Your task to perform on an android device: search for starred emails in the gmail app Image 0: 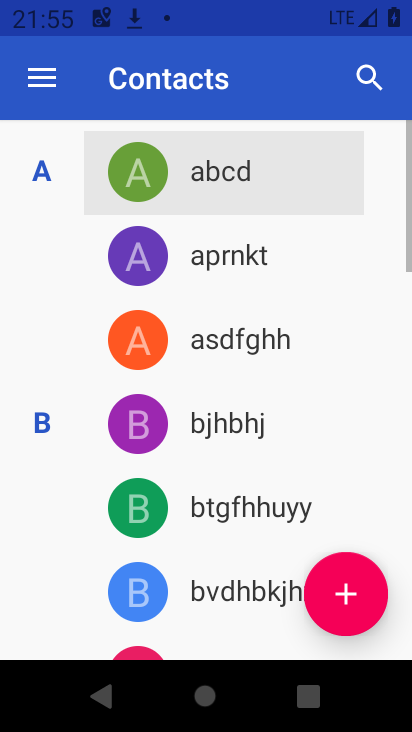
Step 0: click (245, 469)
Your task to perform on an android device: search for starred emails in the gmail app Image 1: 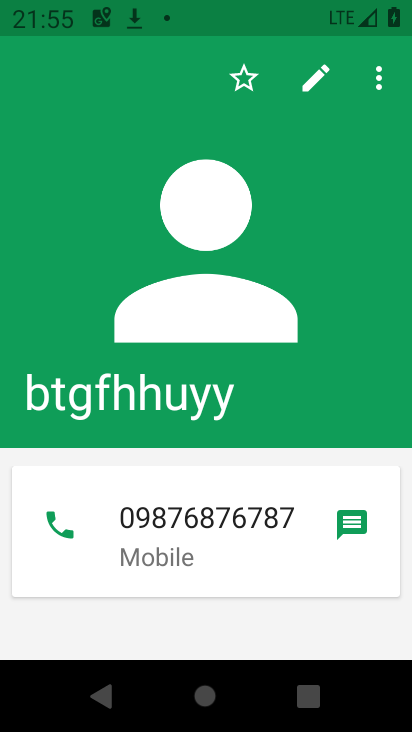
Step 1: press back button
Your task to perform on an android device: search for starred emails in the gmail app Image 2: 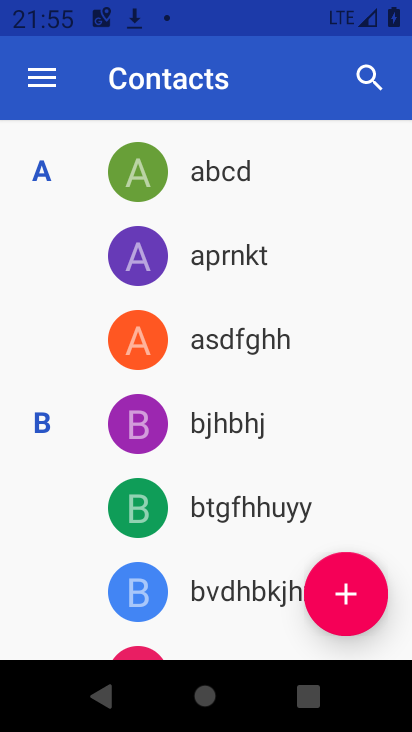
Step 2: press back button
Your task to perform on an android device: search for starred emails in the gmail app Image 3: 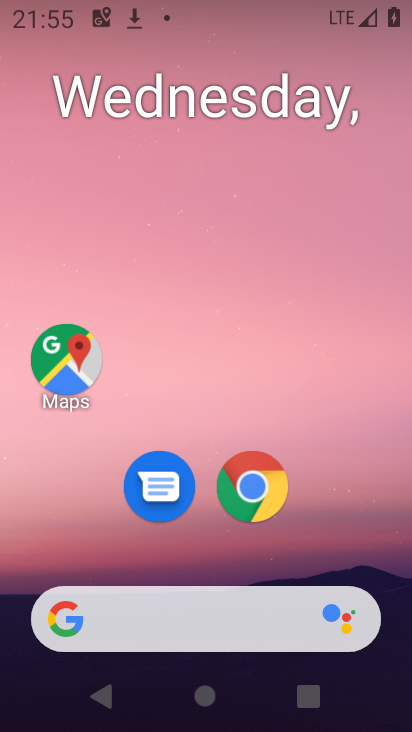
Step 3: drag from (183, 545) to (305, 15)
Your task to perform on an android device: search for starred emails in the gmail app Image 4: 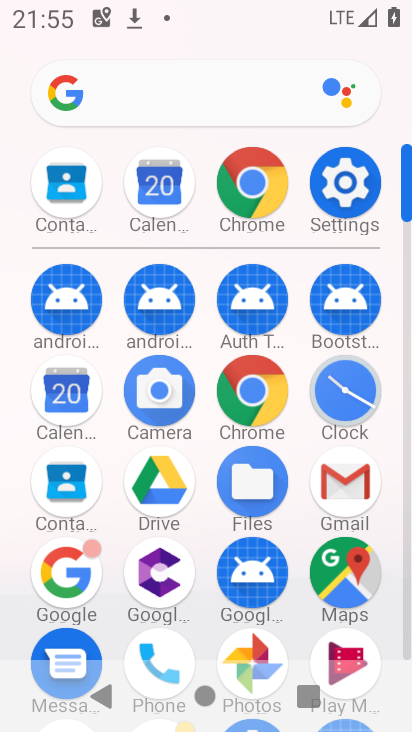
Step 4: click (341, 484)
Your task to perform on an android device: search for starred emails in the gmail app Image 5: 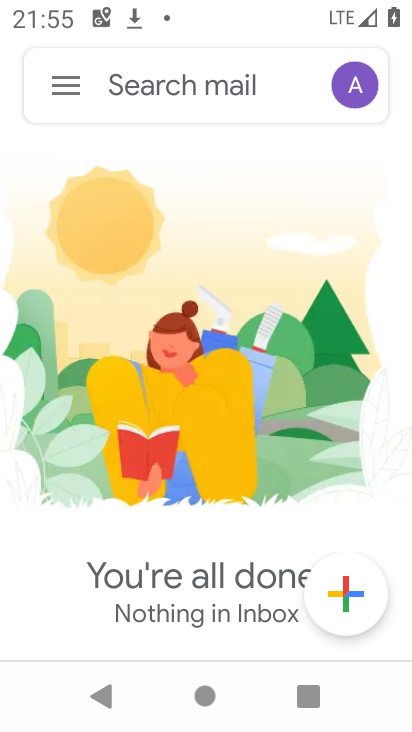
Step 5: click (78, 82)
Your task to perform on an android device: search for starred emails in the gmail app Image 6: 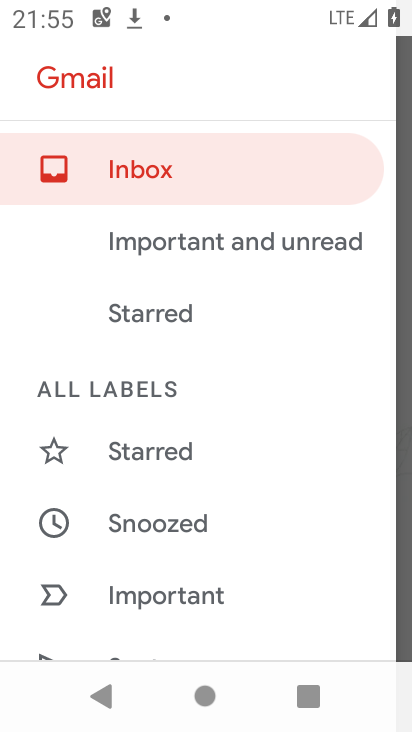
Step 6: click (140, 448)
Your task to perform on an android device: search for starred emails in the gmail app Image 7: 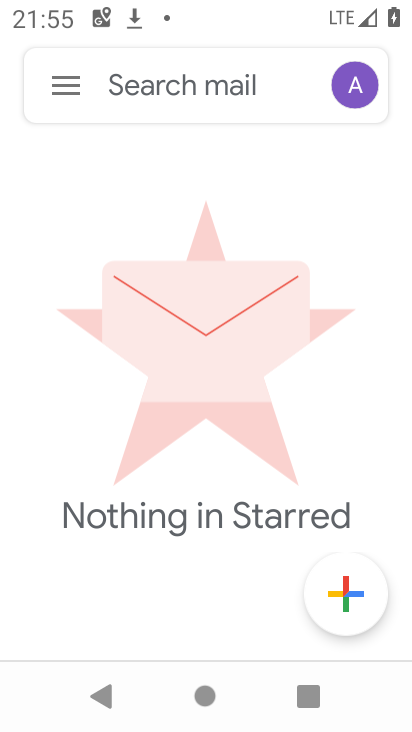
Step 7: task complete